Your task to perform on an android device: change timer sound Image 0: 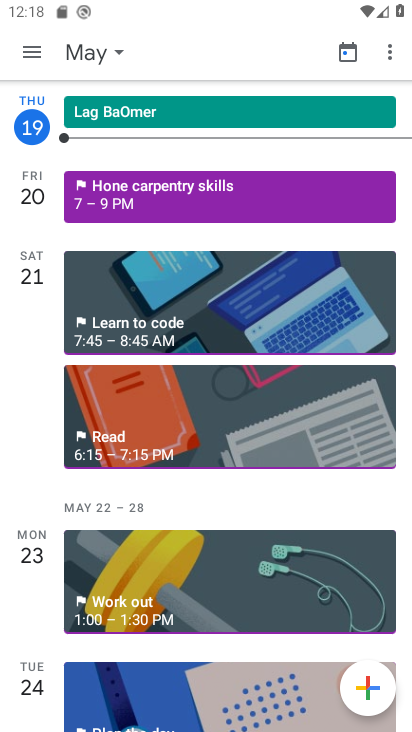
Step 0: press home button
Your task to perform on an android device: change timer sound Image 1: 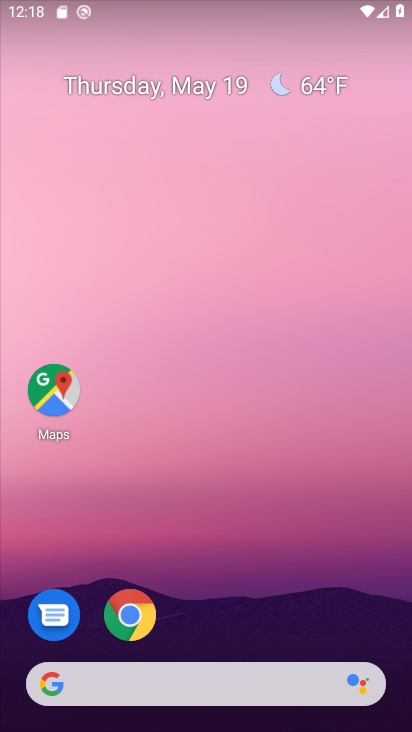
Step 1: drag from (254, 707) to (285, 240)
Your task to perform on an android device: change timer sound Image 2: 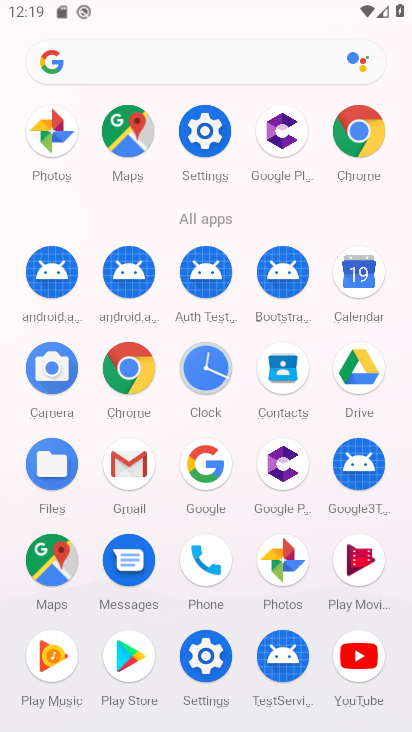
Step 2: click (207, 377)
Your task to perform on an android device: change timer sound Image 3: 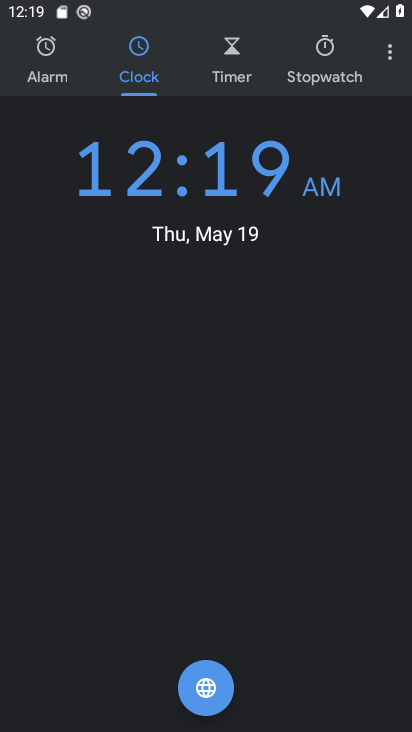
Step 3: click (373, 77)
Your task to perform on an android device: change timer sound Image 4: 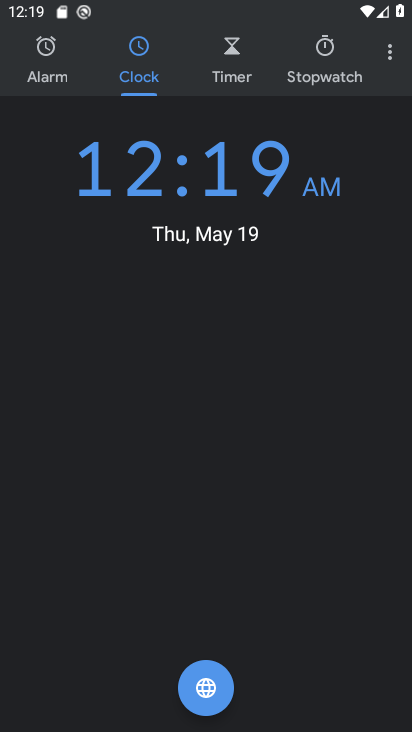
Step 4: click (382, 64)
Your task to perform on an android device: change timer sound Image 5: 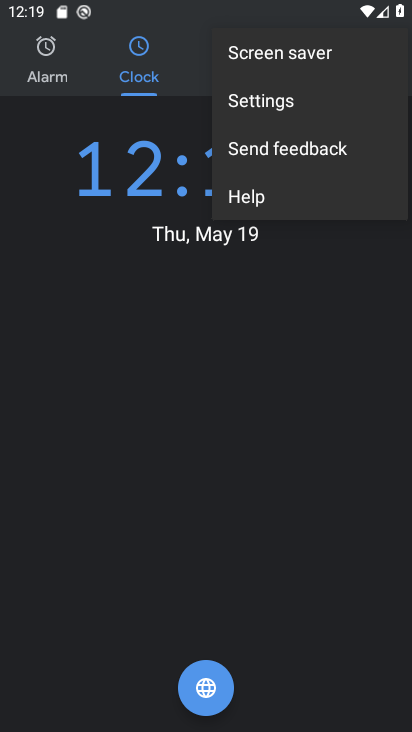
Step 5: click (278, 105)
Your task to perform on an android device: change timer sound Image 6: 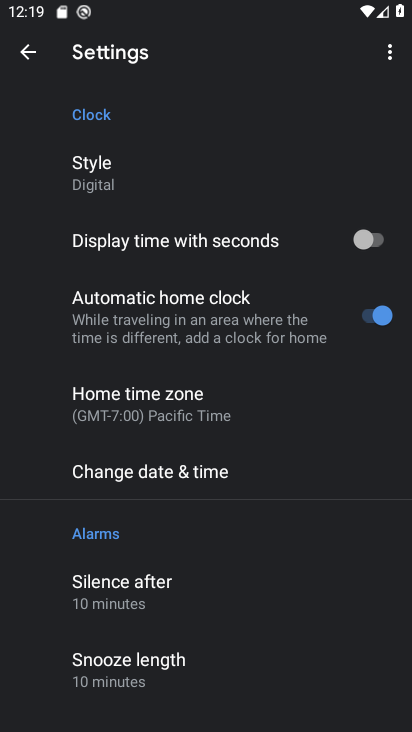
Step 6: drag from (181, 570) to (271, 291)
Your task to perform on an android device: change timer sound Image 7: 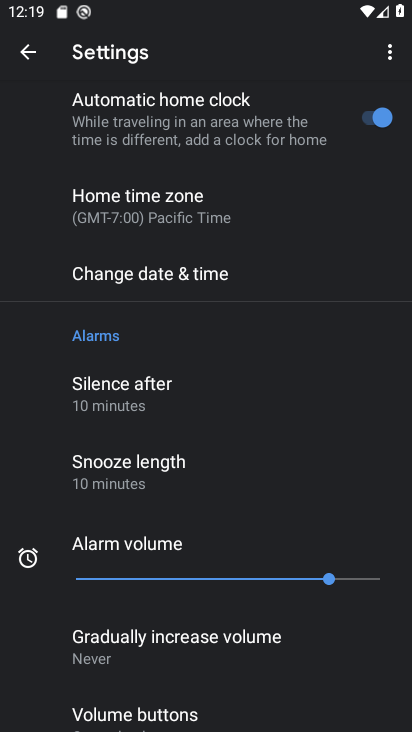
Step 7: drag from (167, 622) to (260, 391)
Your task to perform on an android device: change timer sound Image 8: 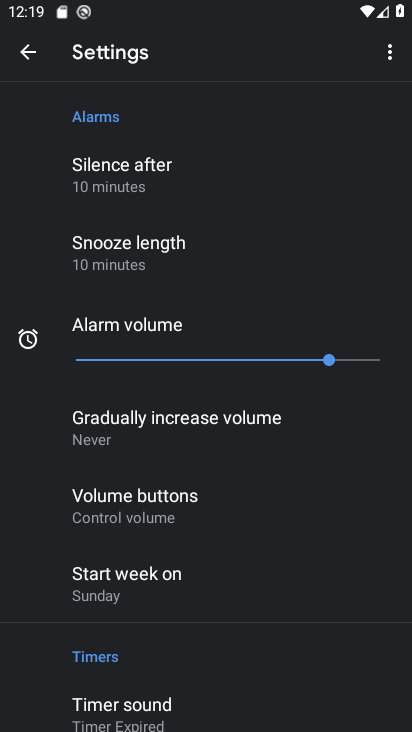
Step 8: click (128, 709)
Your task to perform on an android device: change timer sound Image 9: 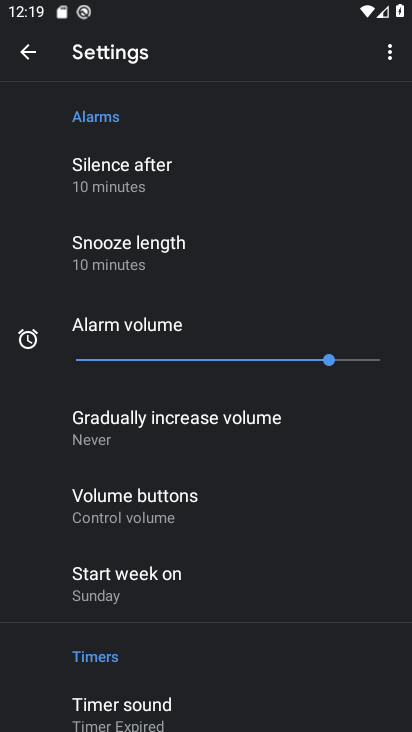
Step 9: click (120, 705)
Your task to perform on an android device: change timer sound Image 10: 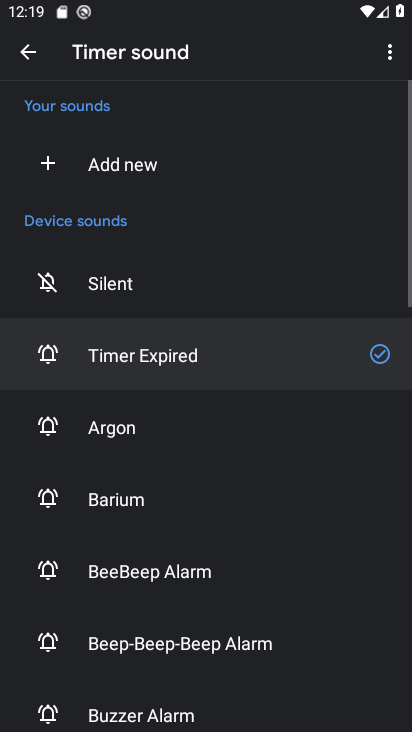
Step 10: click (120, 573)
Your task to perform on an android device: change timer sound Image 11: 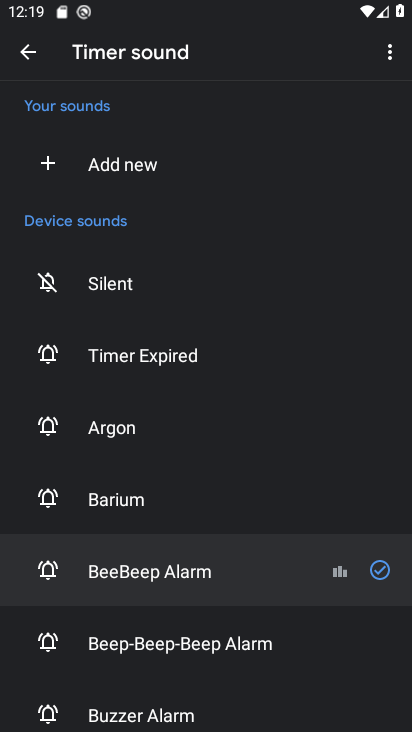
Step 11: task complete